Your task to perform on an android device: Do I have any events tomorrow? Image 0: 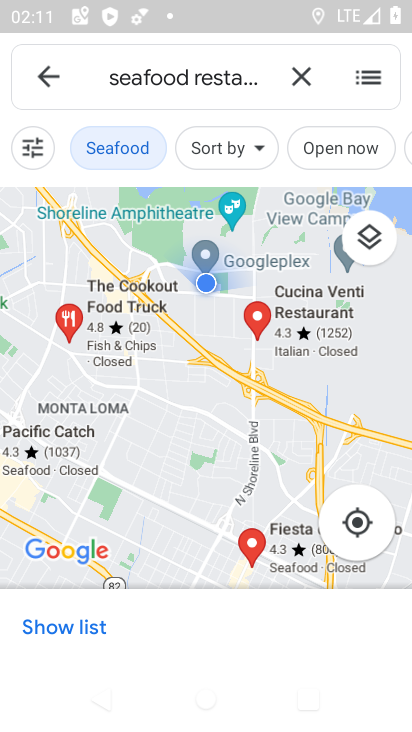
Step 0: press home button
Your task to perform on an android device: Do I have any events tomorrow? Image 1: 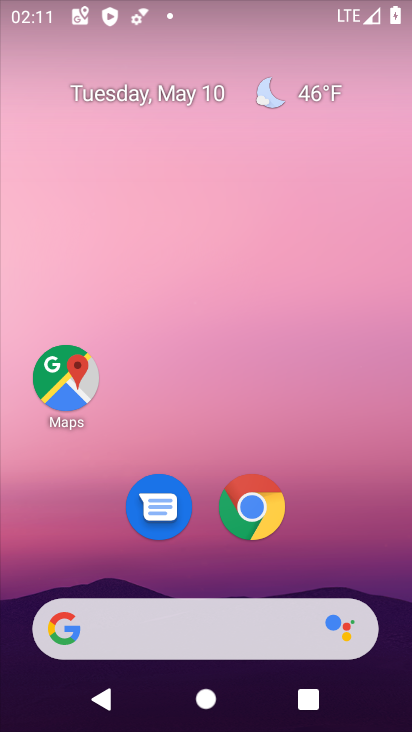
Step 1: drag from (193, 681) to (195, 279)
Your task to perform on an android device: Do I have any events tomorrow? Image 2: 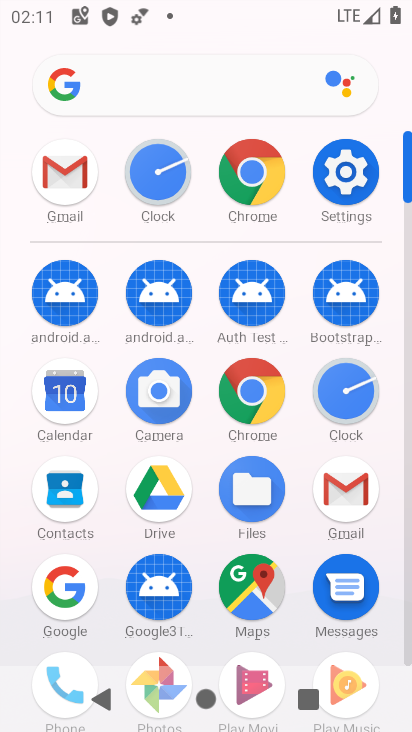
Step 2: click (59, 410)
Your task to perform on an android device: Do I have any events tomorrow? Image 3: 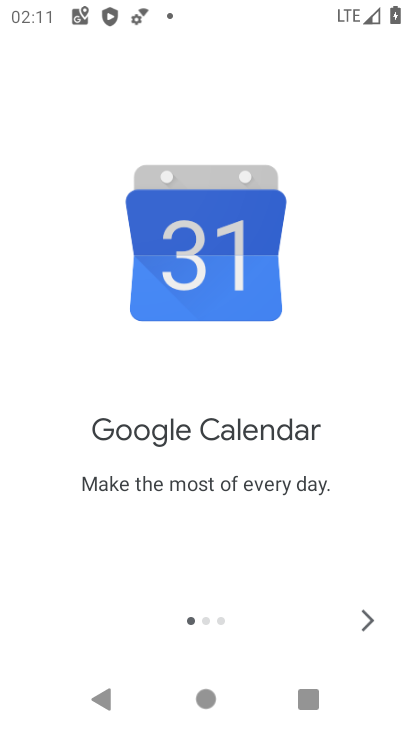
Step 3: click (343, 623)
Your task to perform on an android device: Do I have any events tomorrow? Image 4: 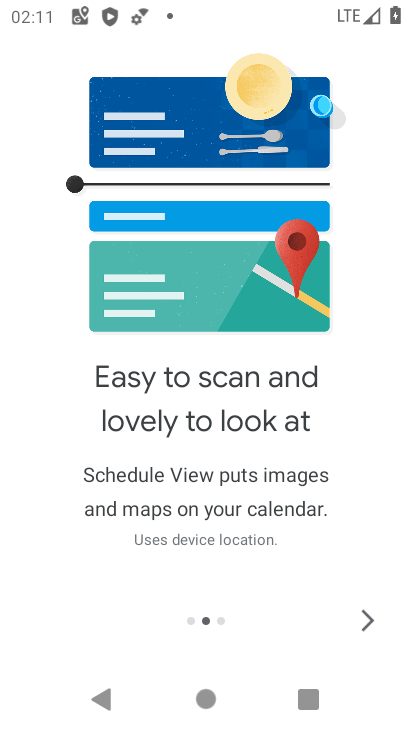
Step 4: click (341, 612)
Your task to perform on an android device: Do I have any events tomorrow? Image 5: 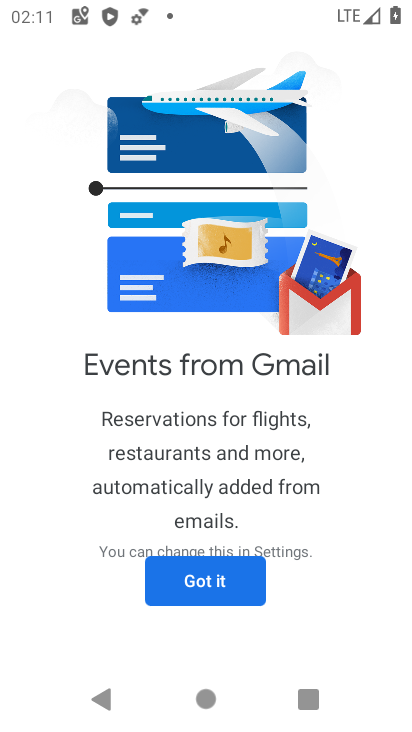
Step 5: click (227, 568)
Your task to perform on an android device: Do I have any events tomorrow? Image 6: 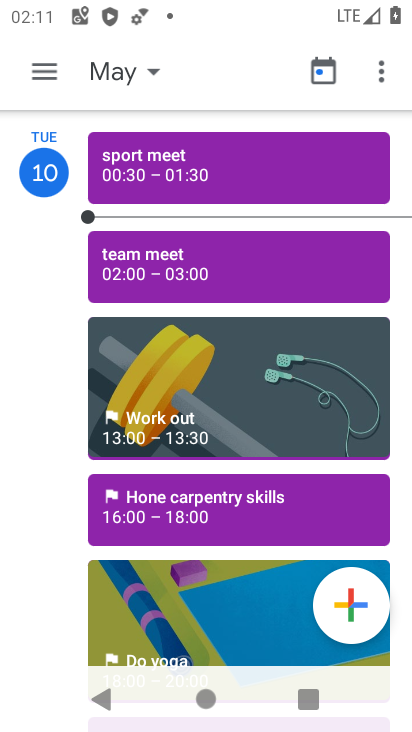
Step 6: click (55, 62)
Your task to perform on an android device: Do I have any events tomorrow? Image 7: 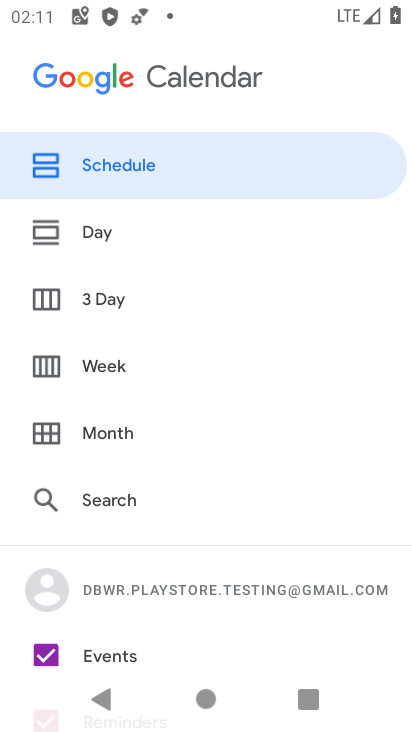
Step 7: click (157, 172)
Your task to perform on an android device: Do I have any events tomorrow? Image 8: 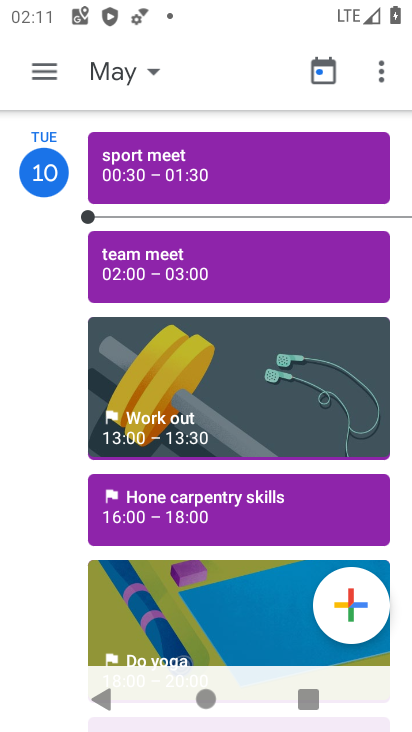
Step 8: task complete